Your task to perform on an android device: Go to CNN.com Image 0: 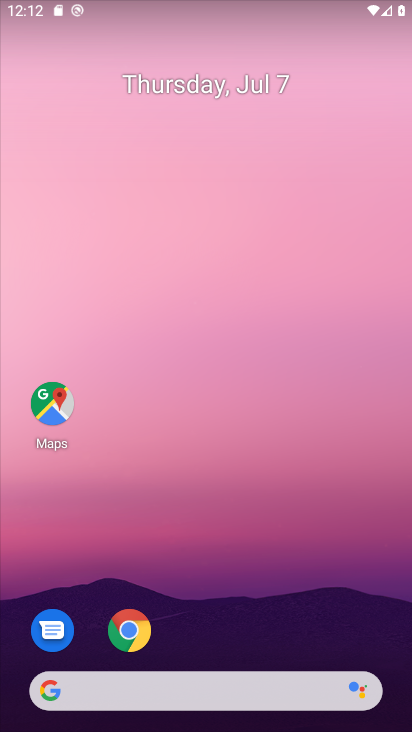
Step 0: drag from (196, 645) to (231, 57)
Your task to perform on an android device: Go to CNN.com Image 1: 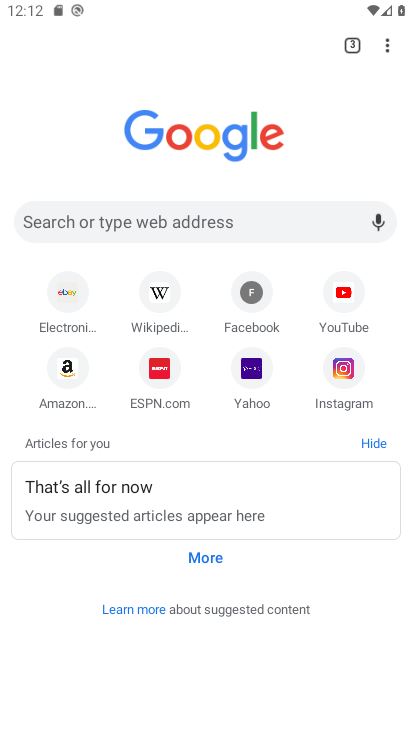
Step 1: click (197, 216)
Your task to perform on an android device: Go to CNN.com Image 2: 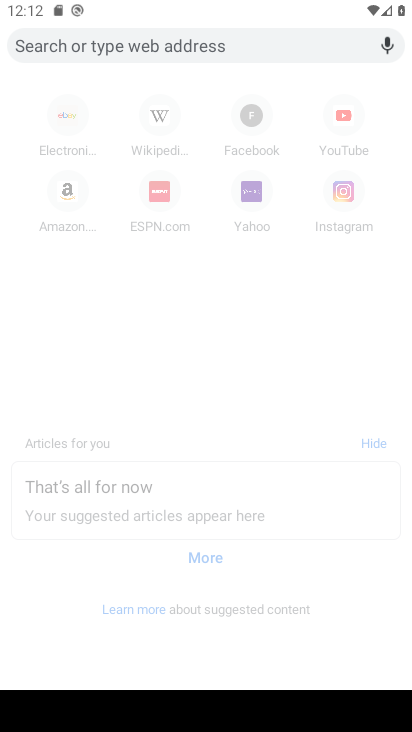
Step 2: type " CNN.com "
Your task to perform on an android device: Go to CNN.com Image 3: 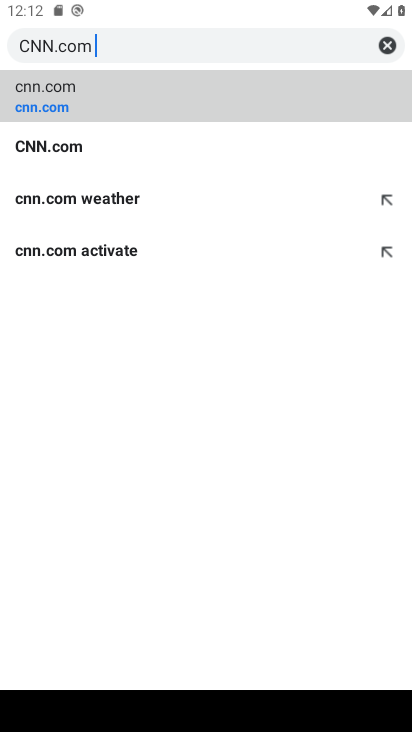
Step 3: click (132, 103)
Your task to perform on an android device: Go to CNN.com Image 4: 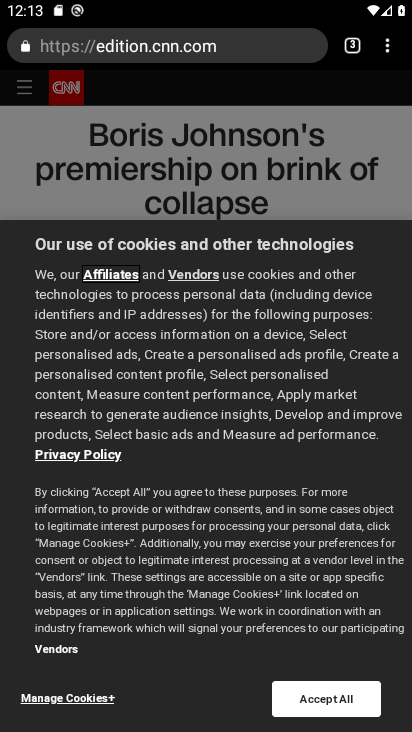
Step 4: task complete